Your task to perform on an android device: open app "eBay: The shopping marketplace" Image 0: 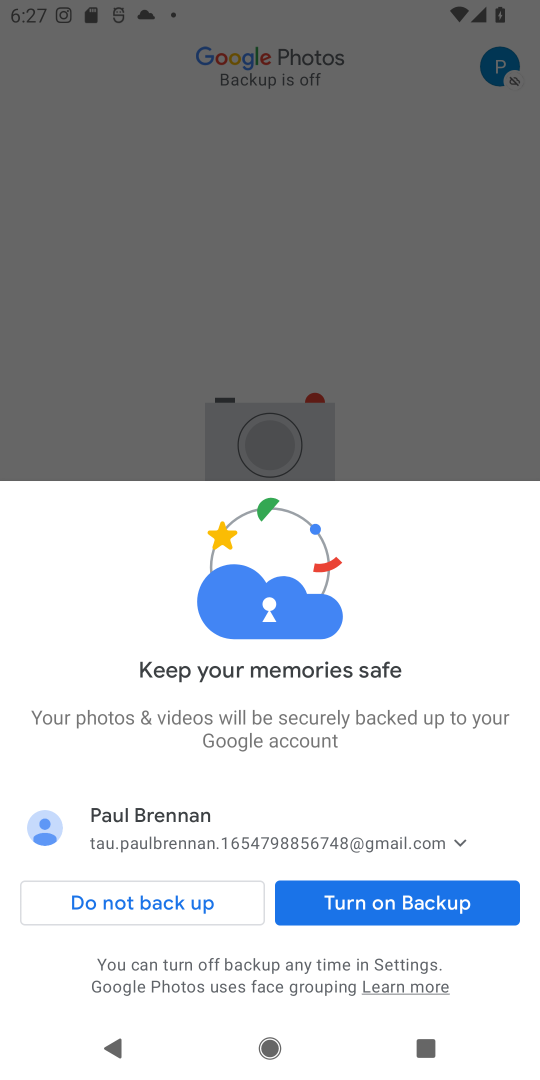
Step 0: press home button
Your task to perform on an android device: open app "eBay: The shopping marketplace" Image 1: 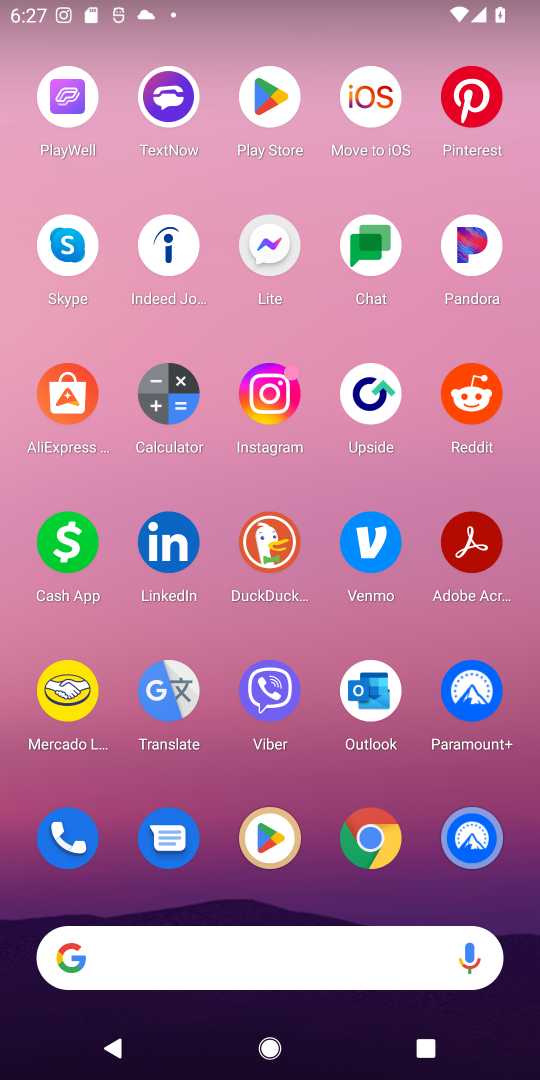
Step 1: click (272, 846)
Your task to perform on an android device: open app "eBay: The shopping marketplace" Image 2: 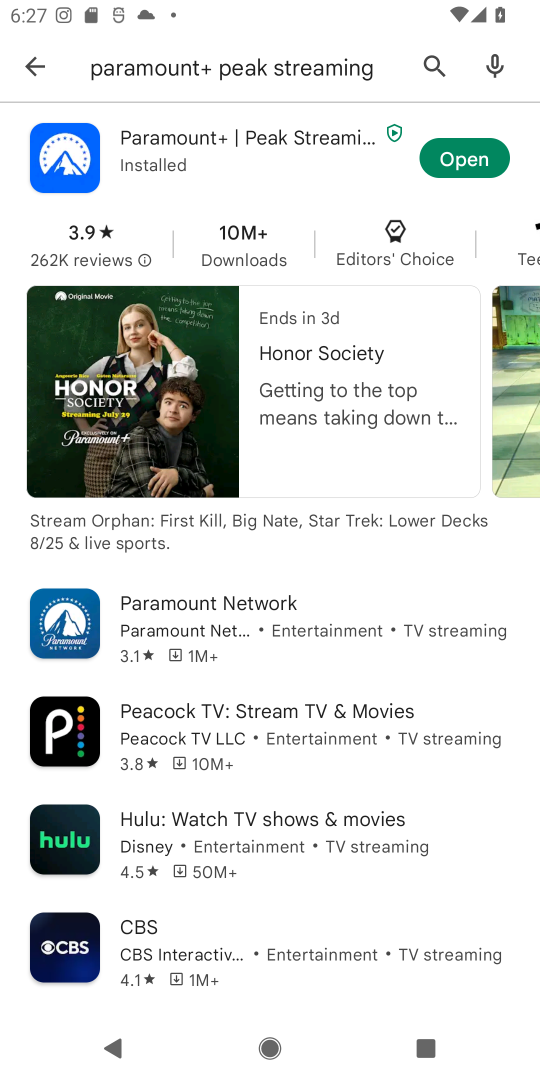
Step 2: click (433, 61)
Your task to perform on an android device: open app "eBay: The shopping marketplace" Image 3: 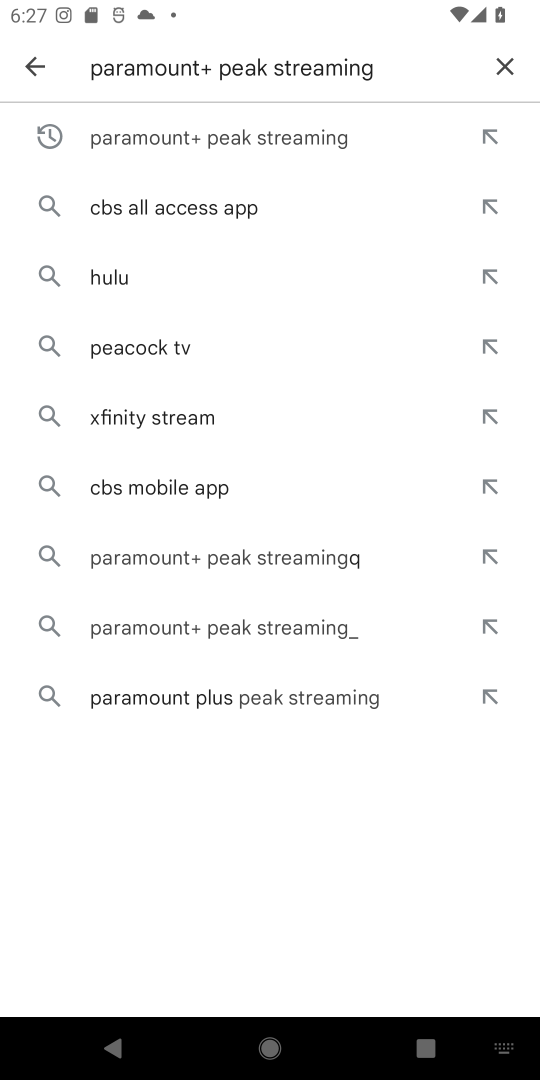
Step 3: click (505, 70)
Your task to perform on an android device: open app "eBay: The shopping marketplace" Image 4: 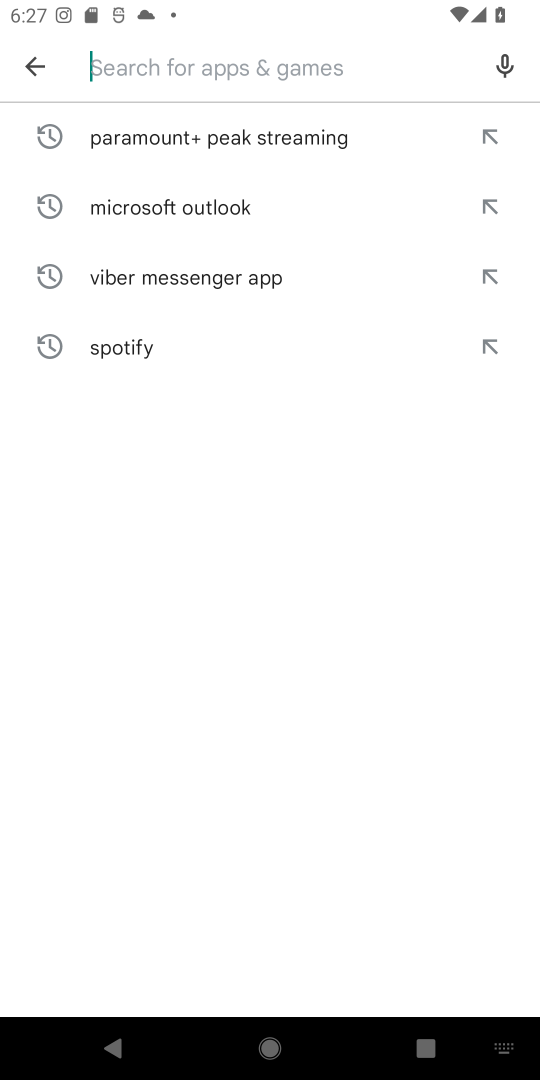
Step 4: type "eBay: The shopping marketplace"
Your task to perform on an android device: open app "eBay: The shopping marketplace" Image 5: 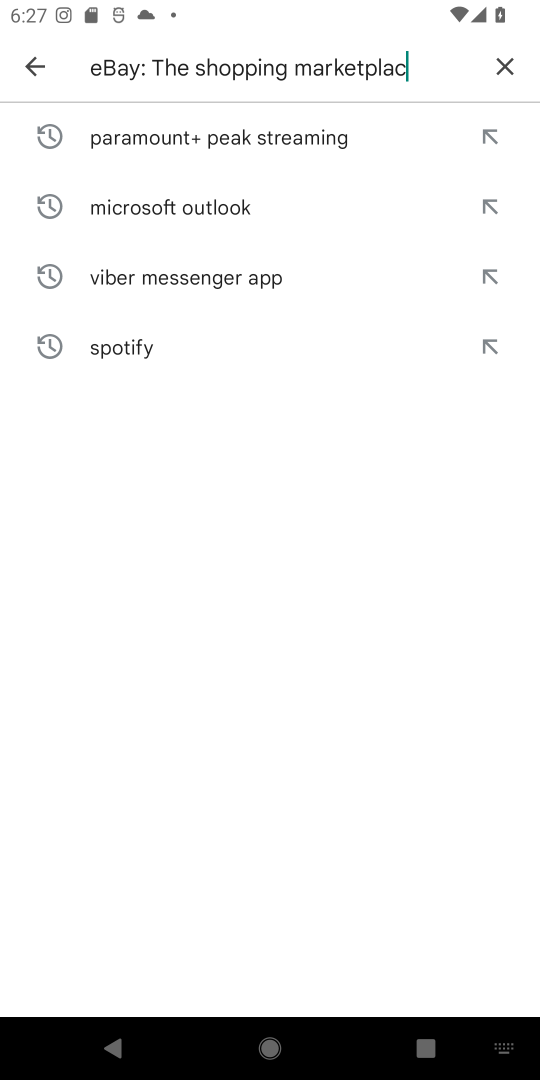
Step 5: type ""
Your task to perform on an android device: open app "eBay: The shopping marketplace" Image 6: 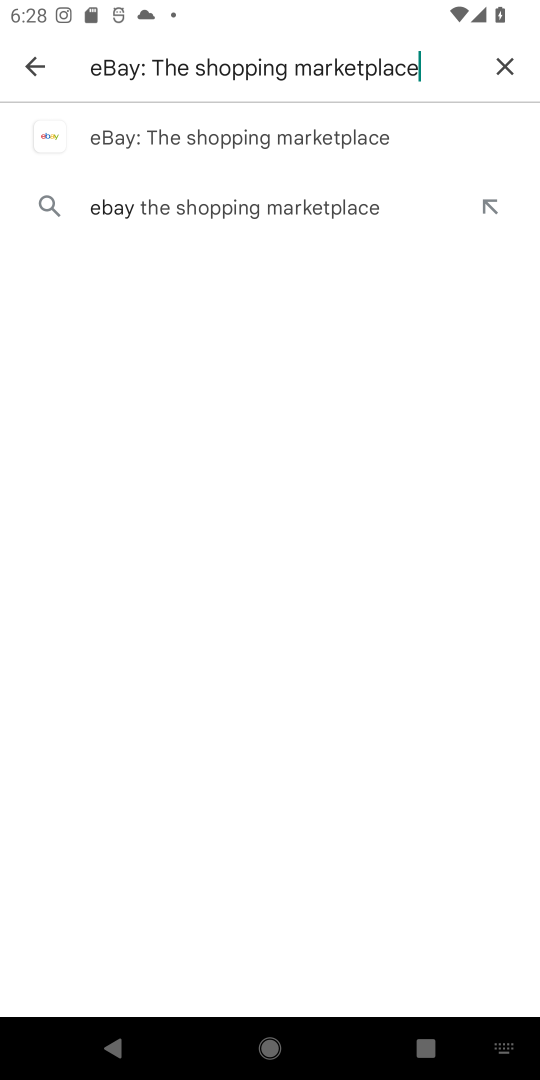
Step 6: click (362, 132)
Your task to perform on an android device: open app "eBay: The shopping marketplace" Image 7: 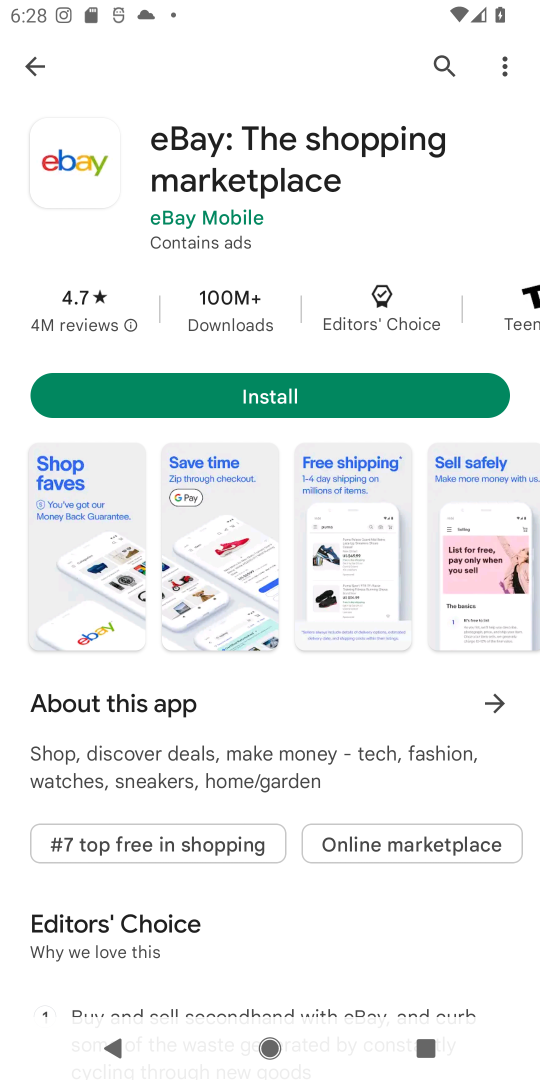
Step 7: task complete